Your task to perform on an android device: open app "Calculator" Image 0: 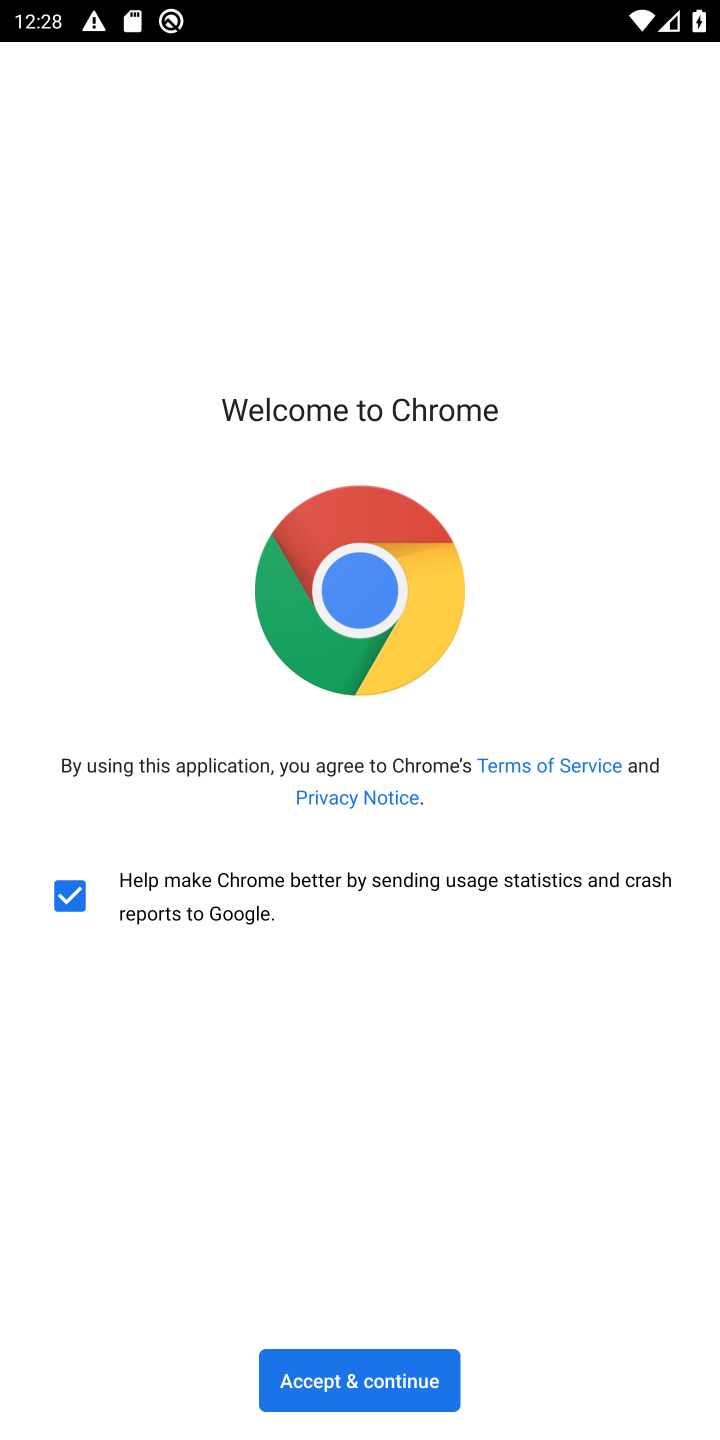
Step 0: press back button
Your task to perform on an android device: open app "Calculator" Image 1: 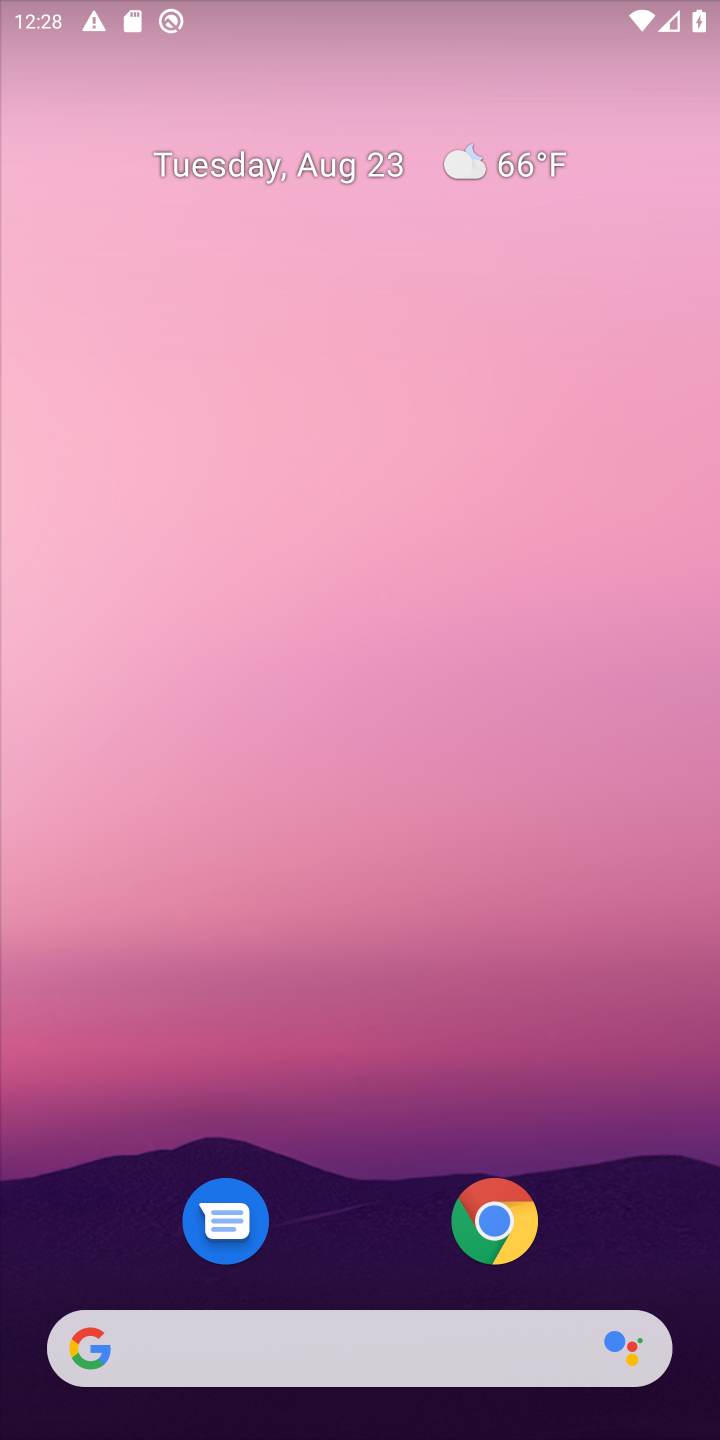
Step 1: drag from (428, 935) to (439, 164)
Your task to perform on an android device: open app "Calculator" Image 2: 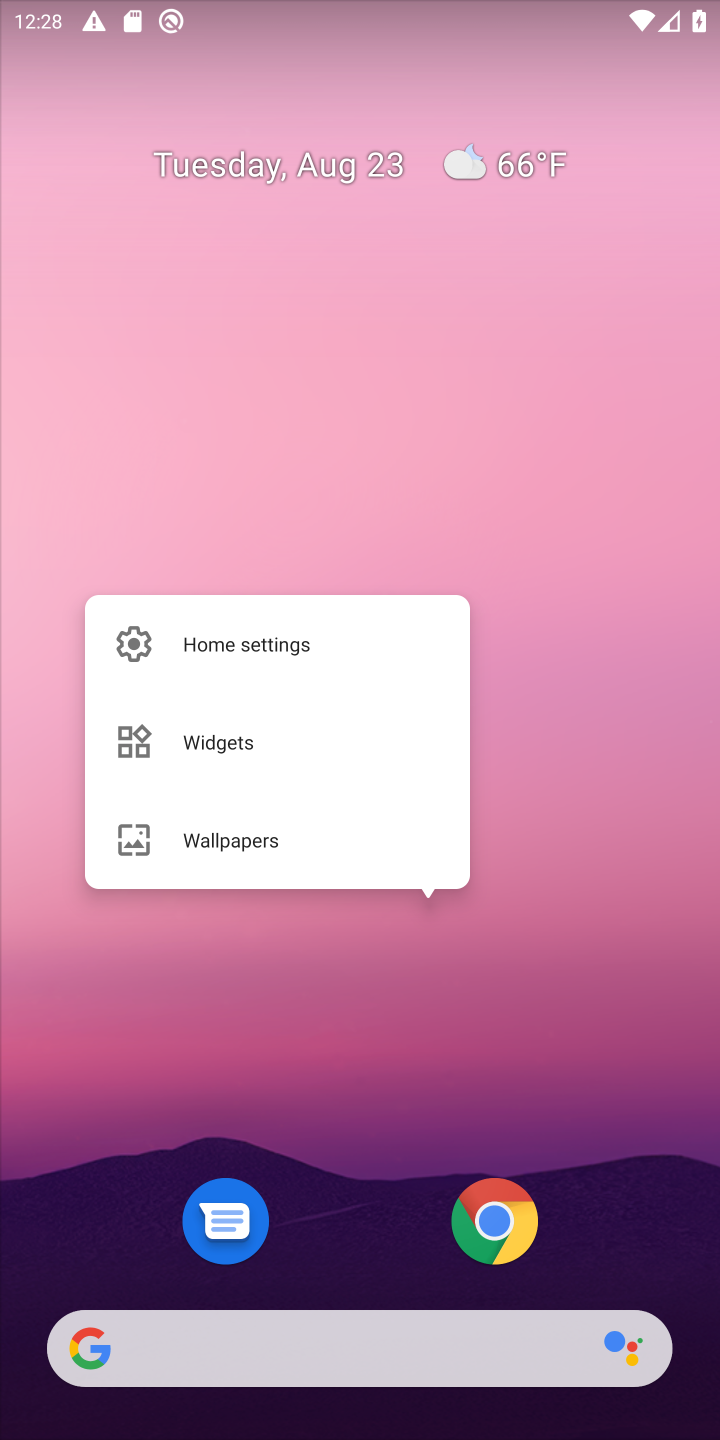
Step 2: click (283, 1062)
Your task to perform on an android device: open app "Calculator" Image 3: 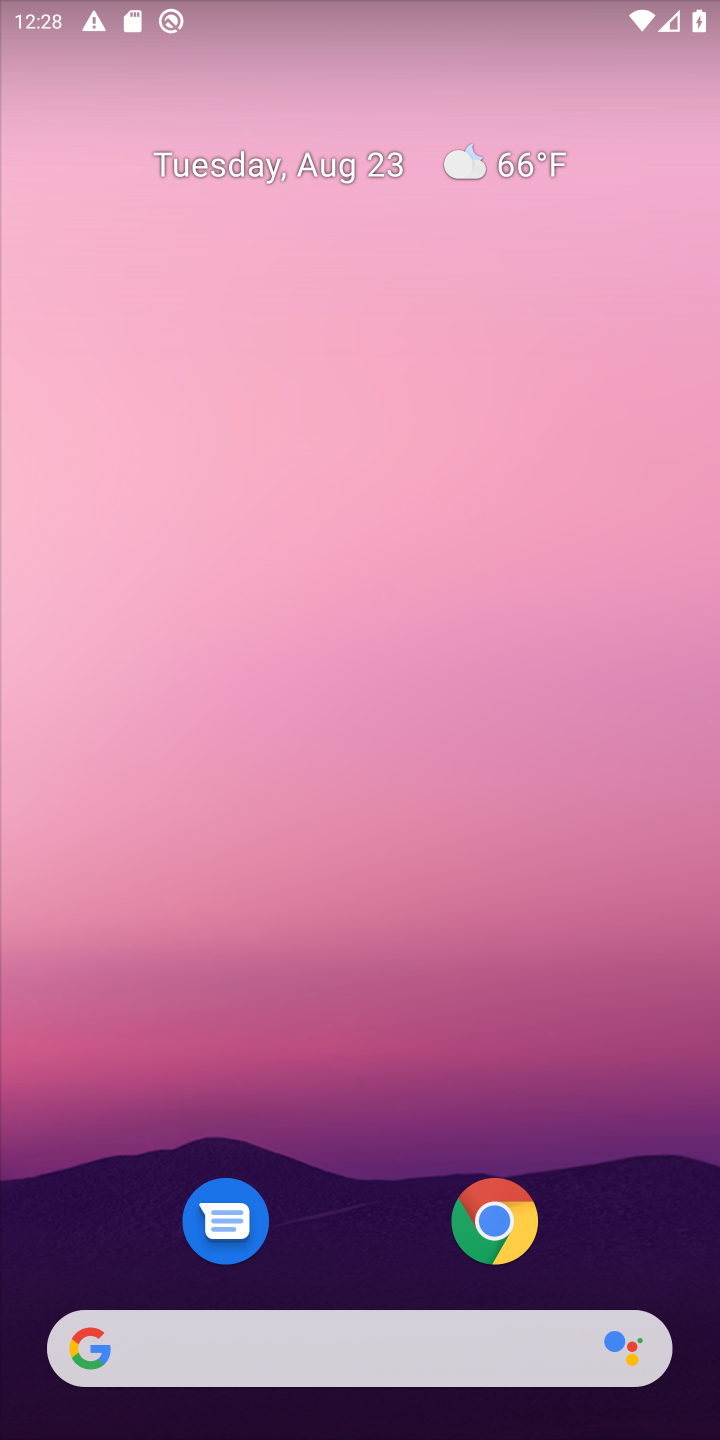
Step 3: drag from (444, 527) to (444, 428)
Your task to perform on an android device: open app "Calculator" Image 4: 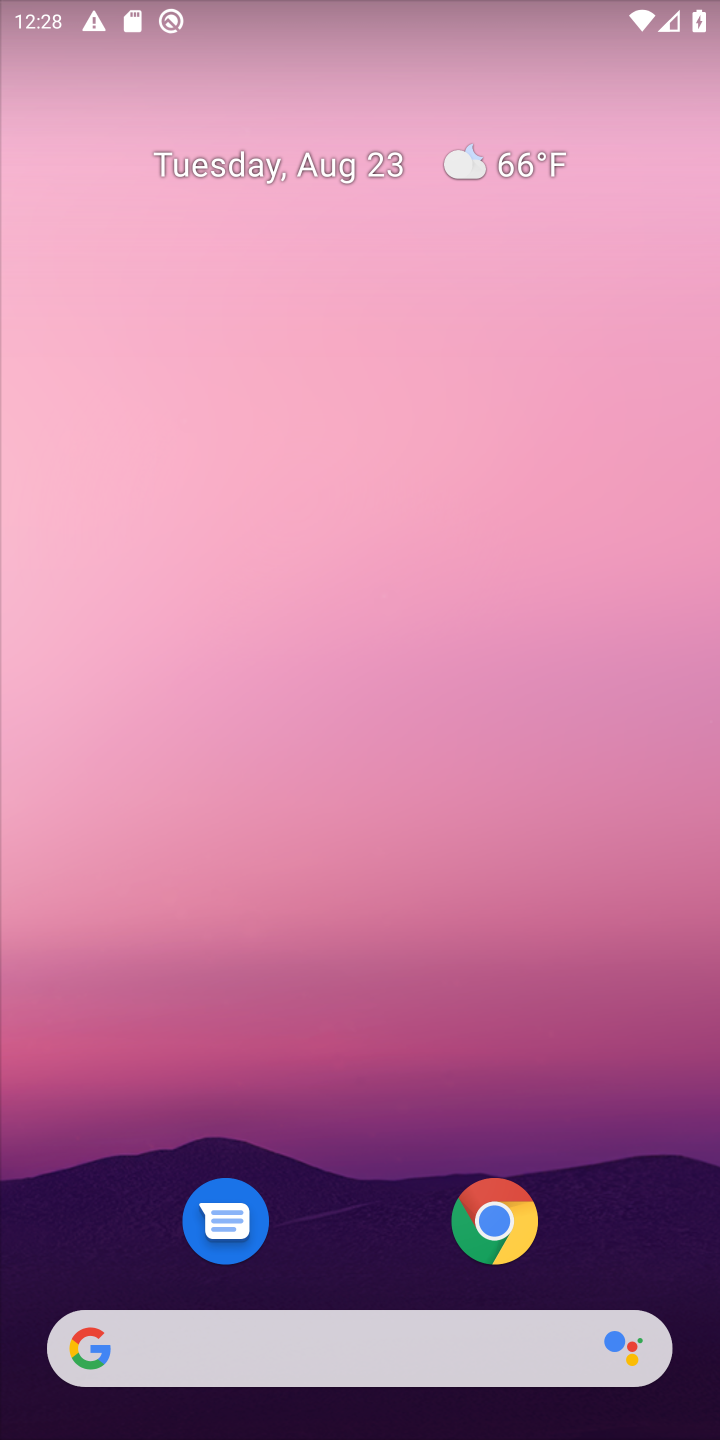
Step 4: drag from (391, 1259) to (353, 138)
Your task to perform on an android device: open app "Calculator" Image 5: 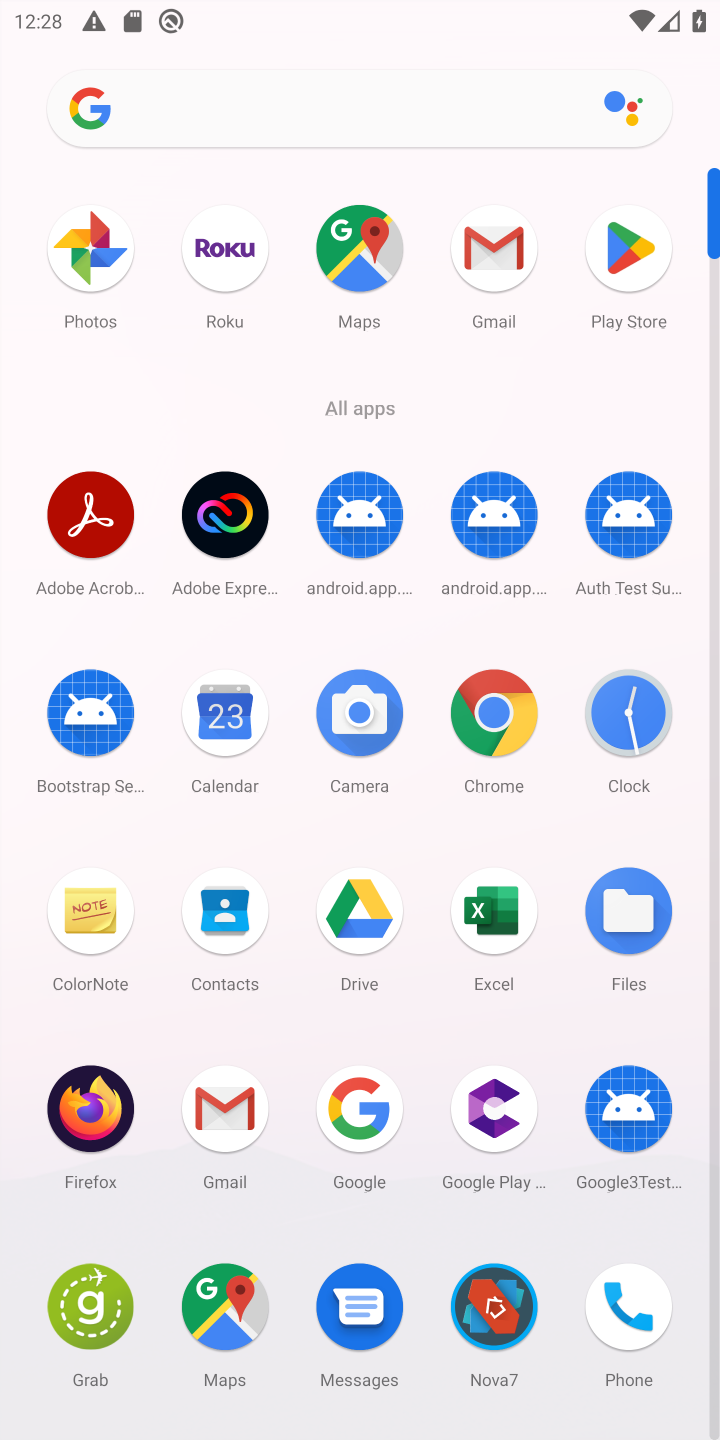
Step 5: click (626, 310)
Your task to perform on an android device: open app "Calculator" Image 6: 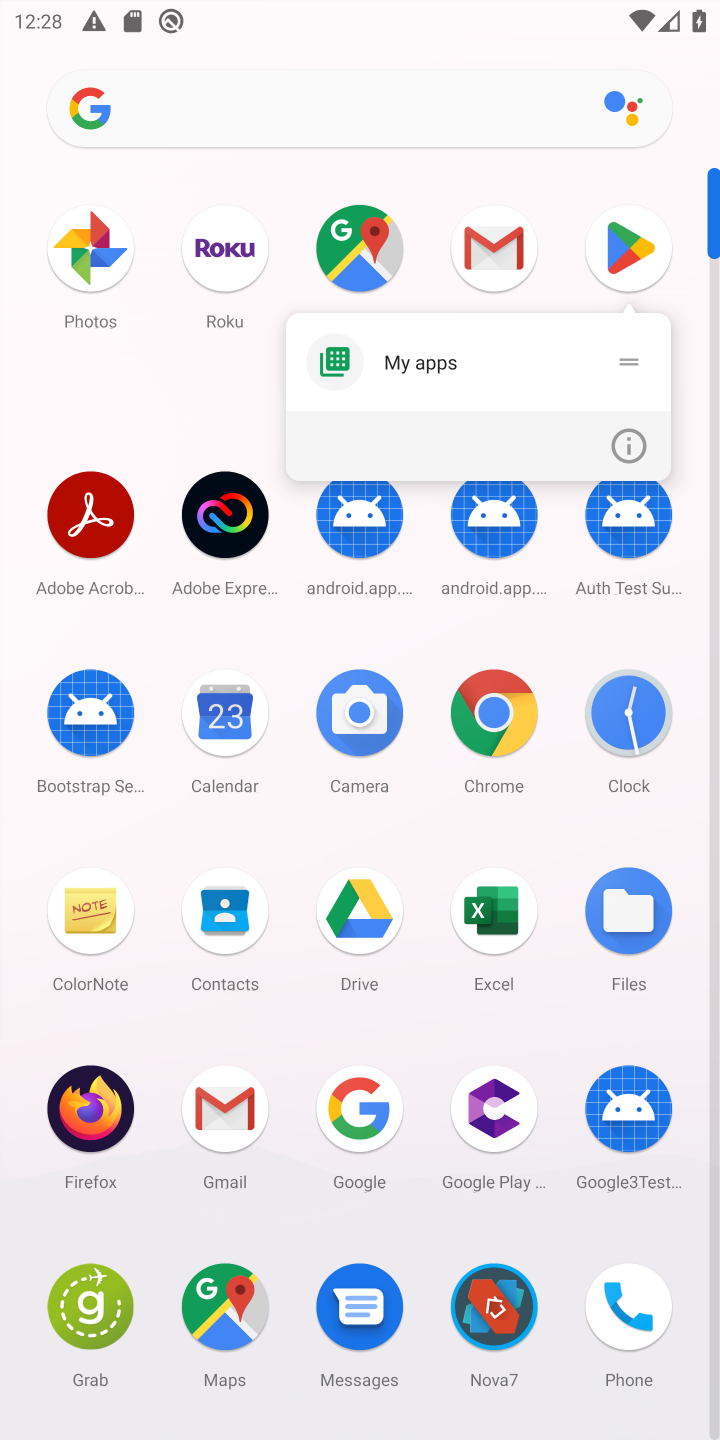
Step 6: click (616, 258)
Your task to perform on an android device: open app "Calculator" Image 7: 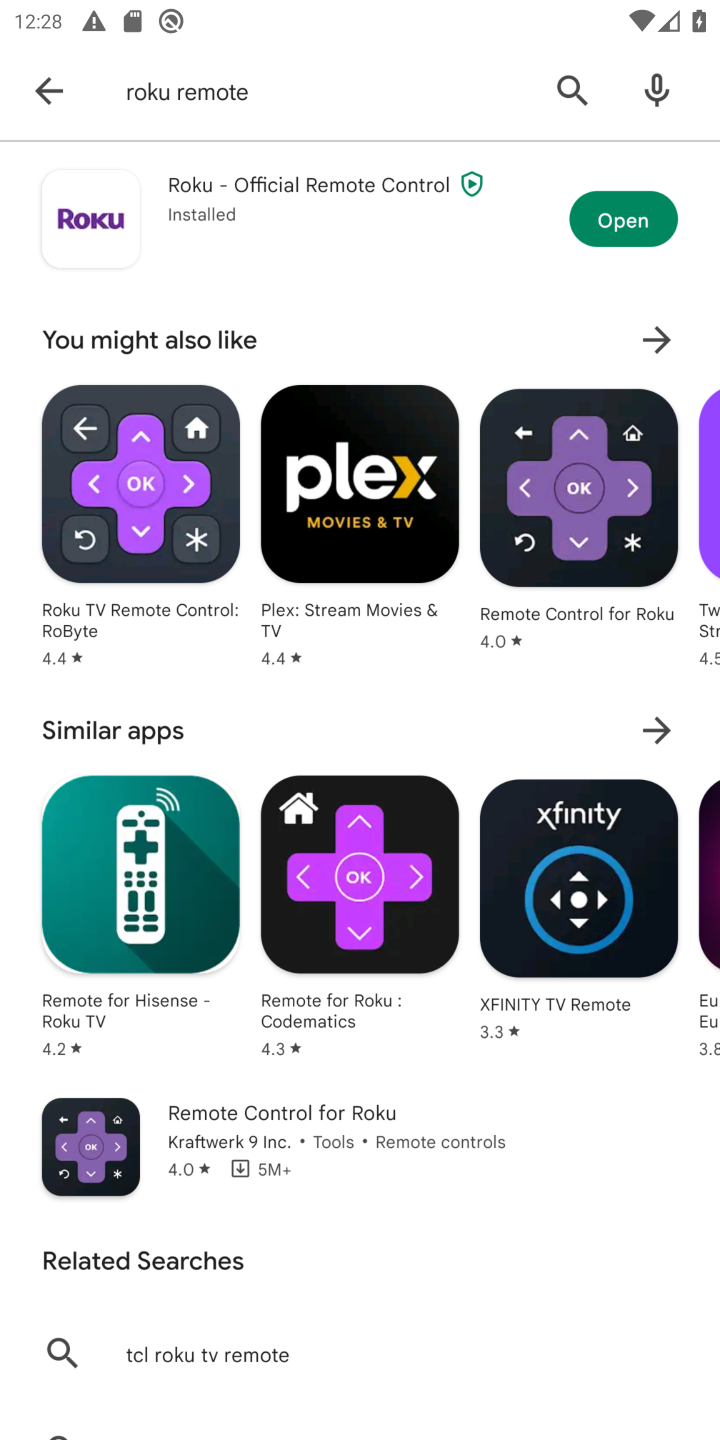
Step 7: click (616, 258)
Your task to perform on an android device: open app "Calculator" Image 8: 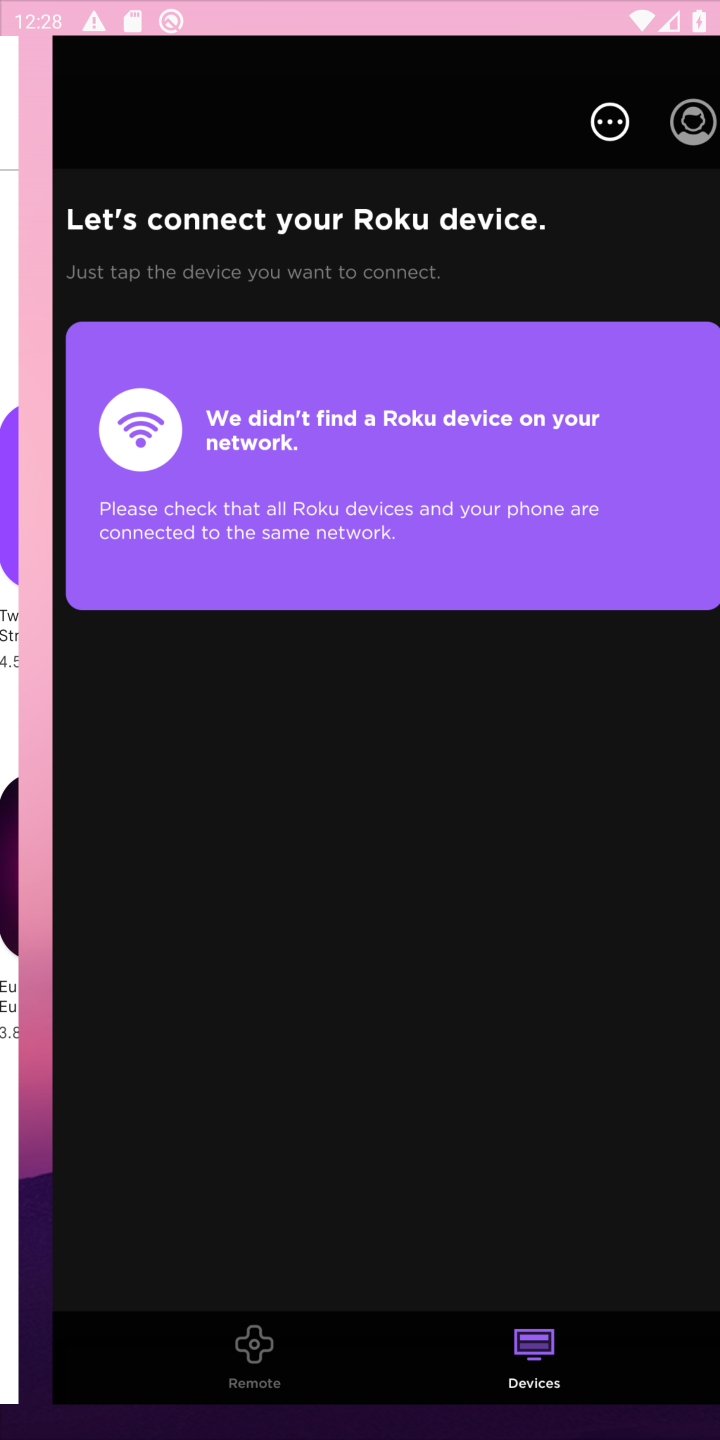
Step 8: click (568, 100)
Your task to perform on an android device: open app "Calculator" Image 9: 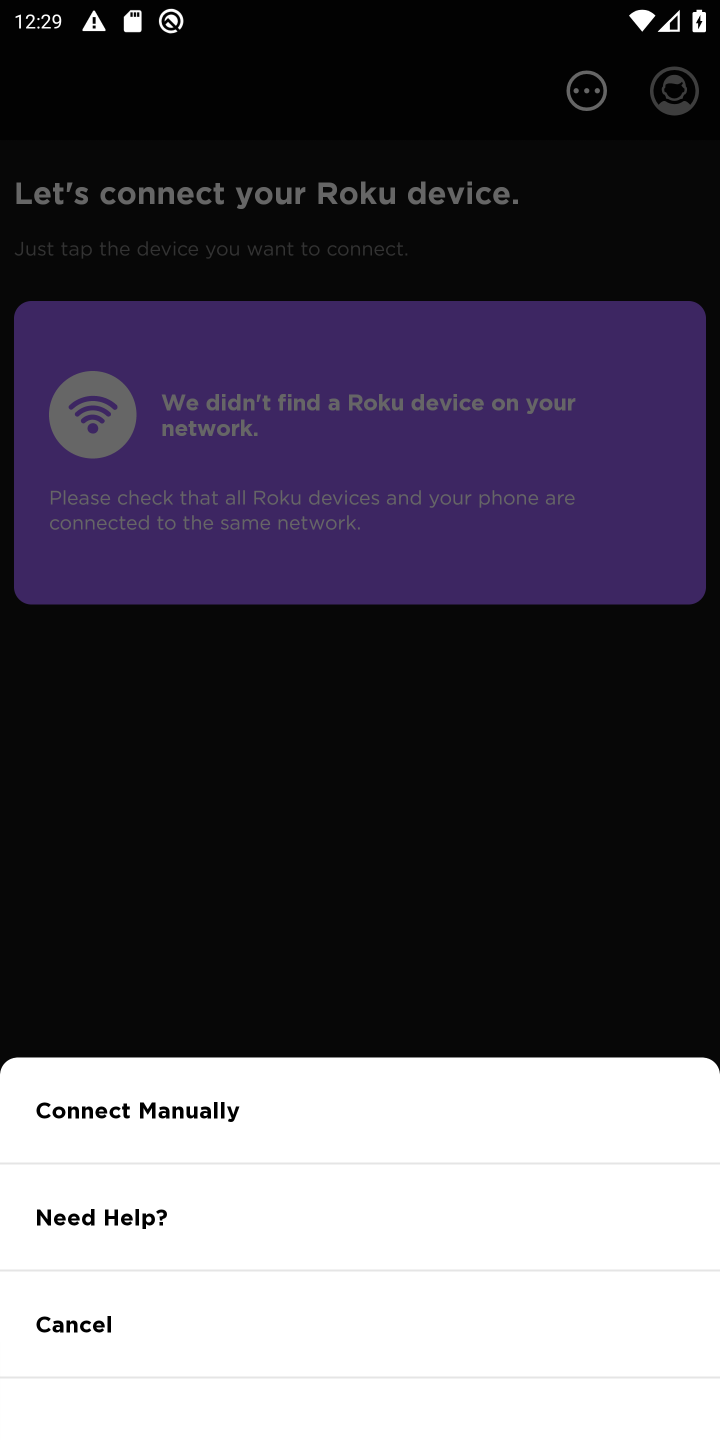
Step 9: press back button
Your task to perform on an android device: open app "Calculator" Image 10: 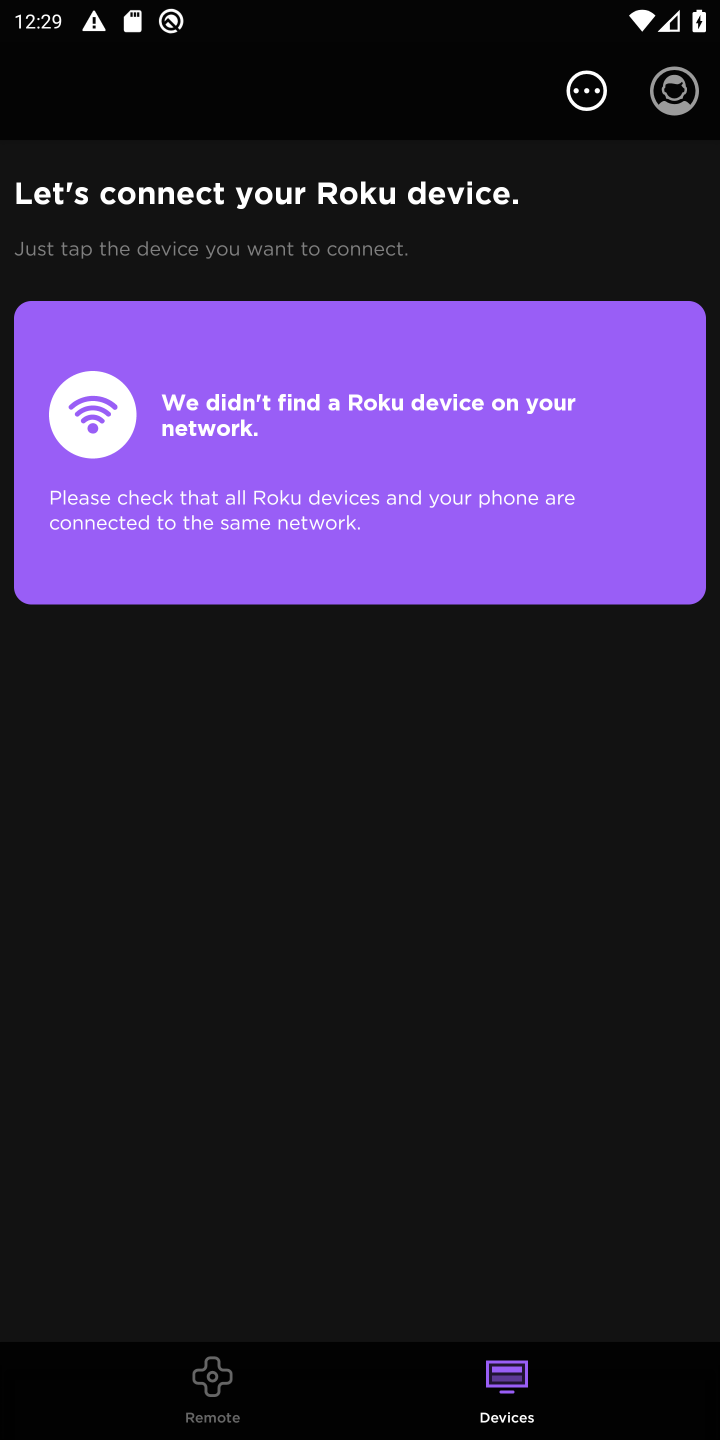
Step 10: press back button
Your task to perform on an android device: open app "Calculator" Image 11: 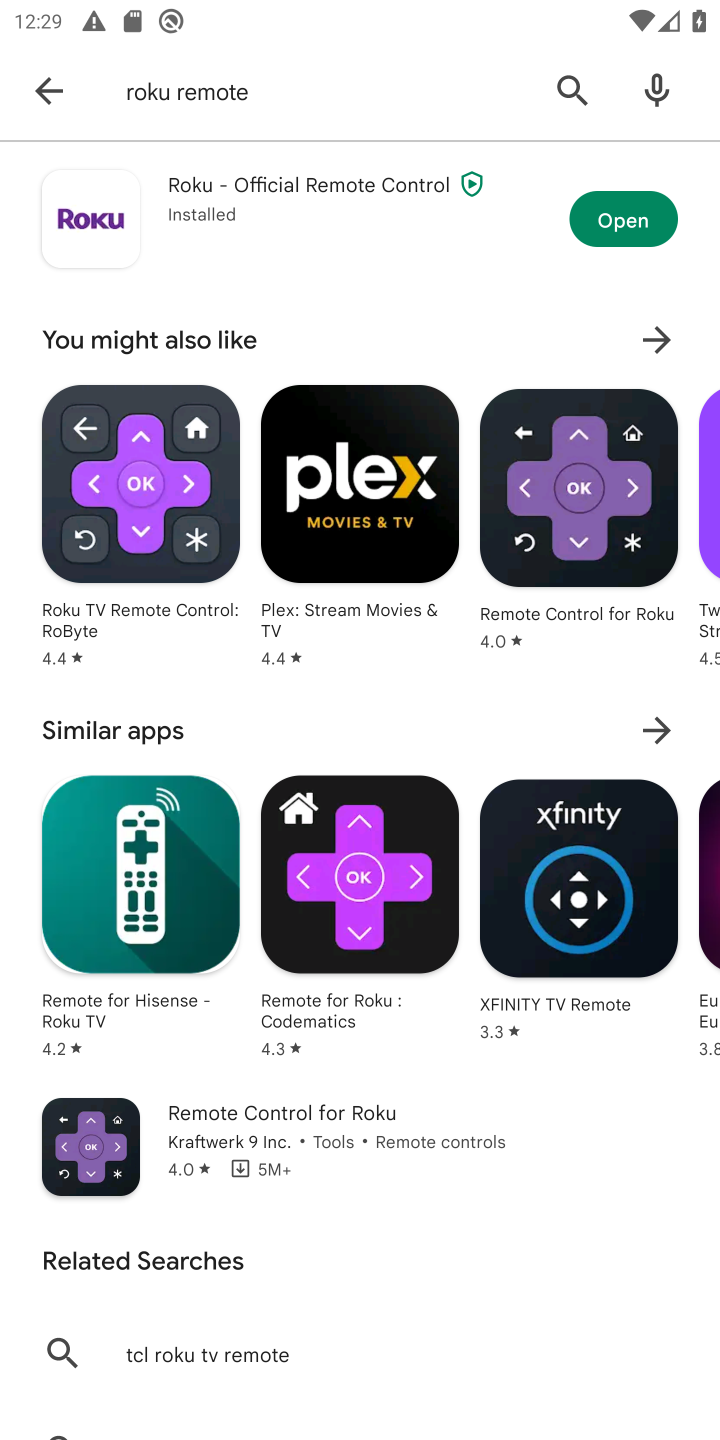
Step 11: click (557, 92)
Your task to perform on an android device: open app "Calculator" Image 12: 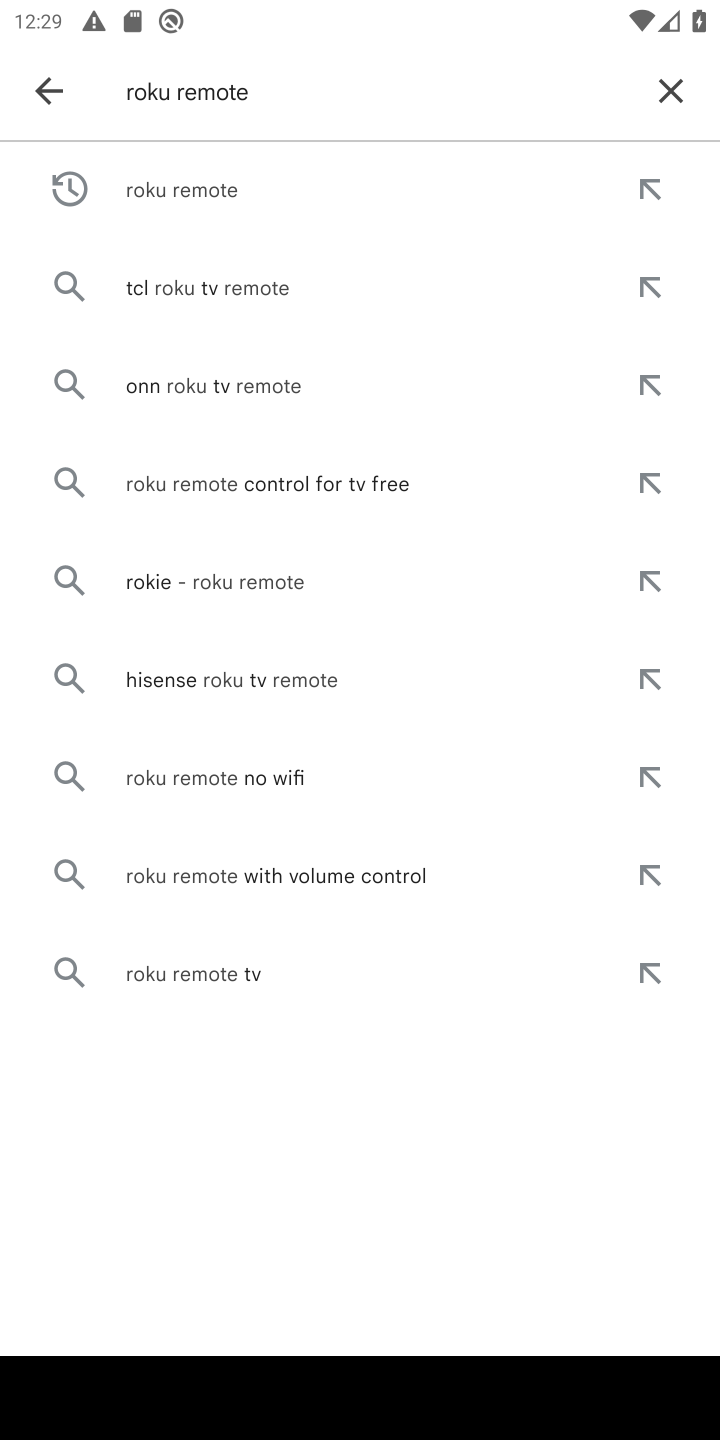
Step 12: click (671, 86)
Your task to perform on an android device: open app "Calculator" Image 13: 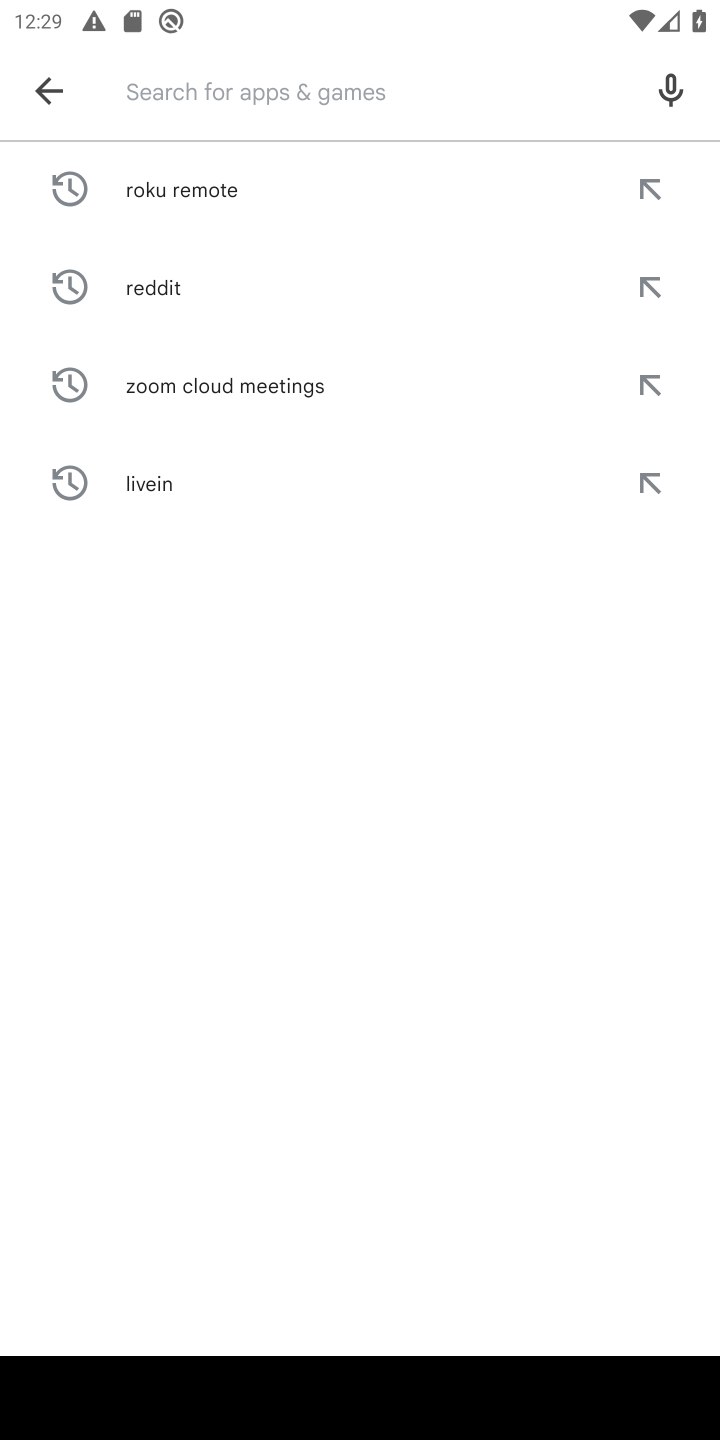
Step 13: click (191, 98)
Your task to perform on an android device: open app "Calculator" Image 14: 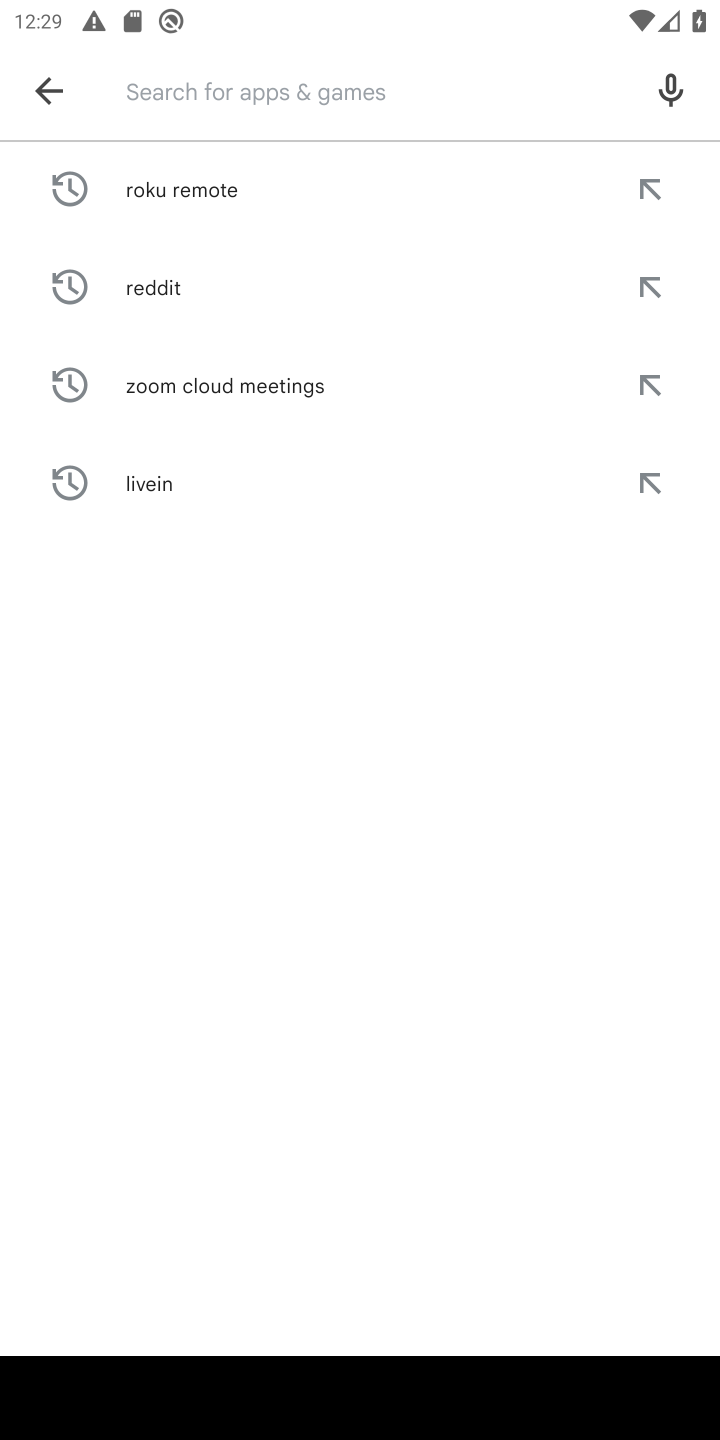
Step 14: type "Calculator"
Your task to perform on an android device: open app "Calculator" Image 15: 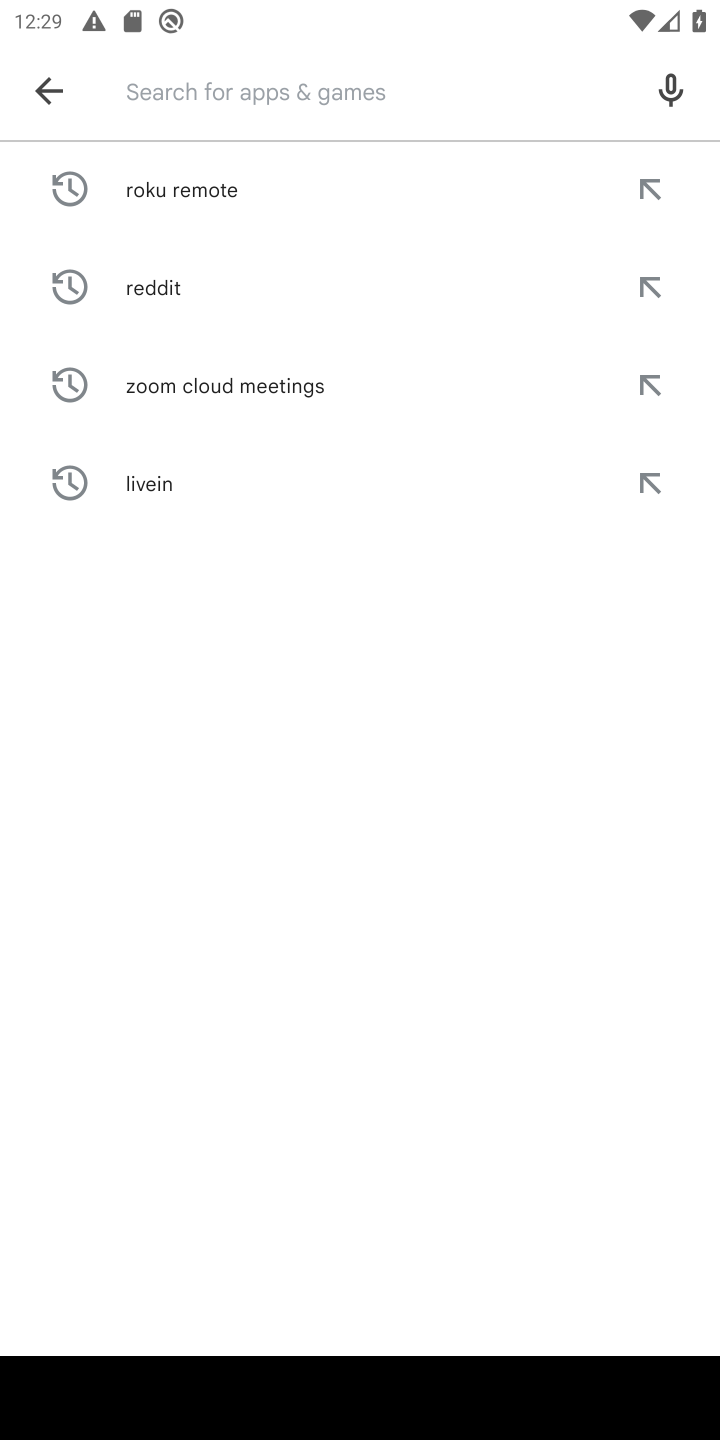
Step 15: click (153, 863)
Your task to perform on an android device: open app "Calculator" Image 16: 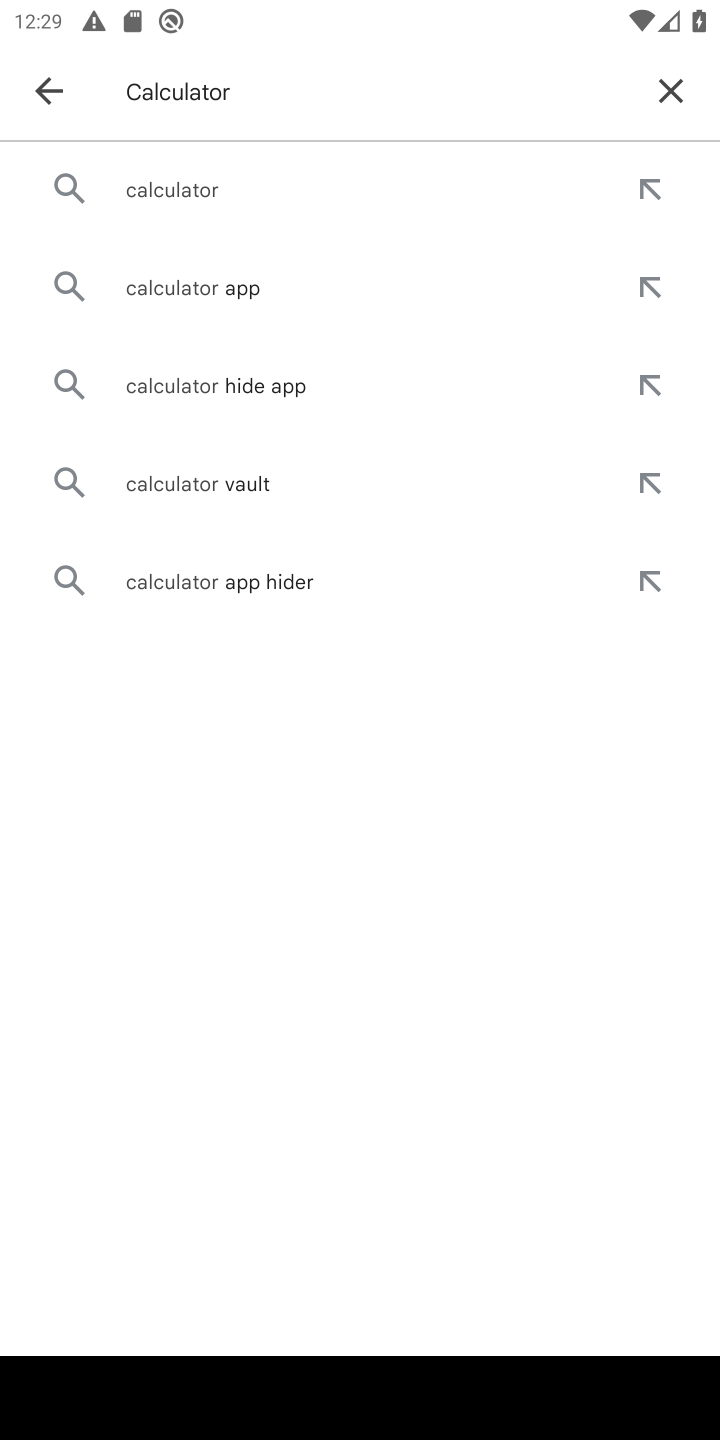
Step 16: click (169, 187)
Your task to perform on an android device: open app "Calculator" Image 17: 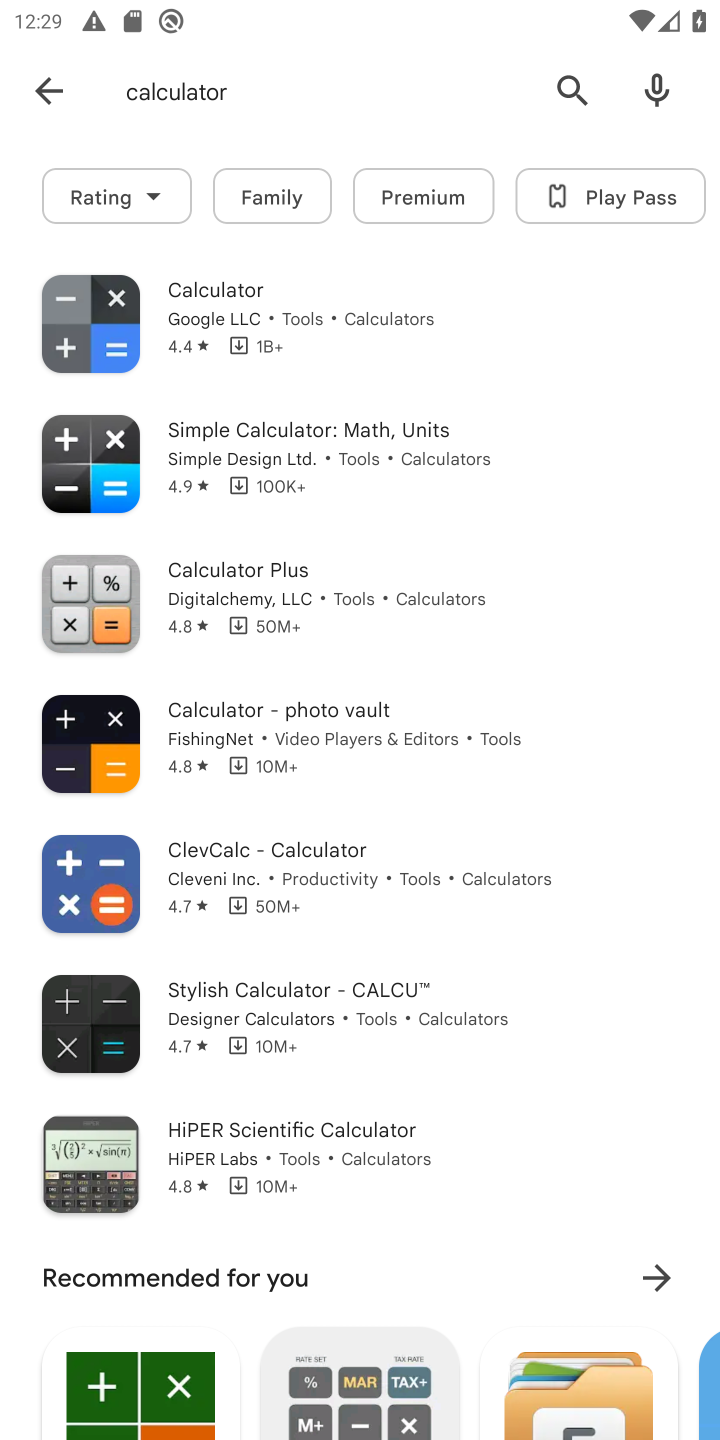
Step 17: click (199, 311)
Your task to perform on an android device: open app "Calculator" Image 18: 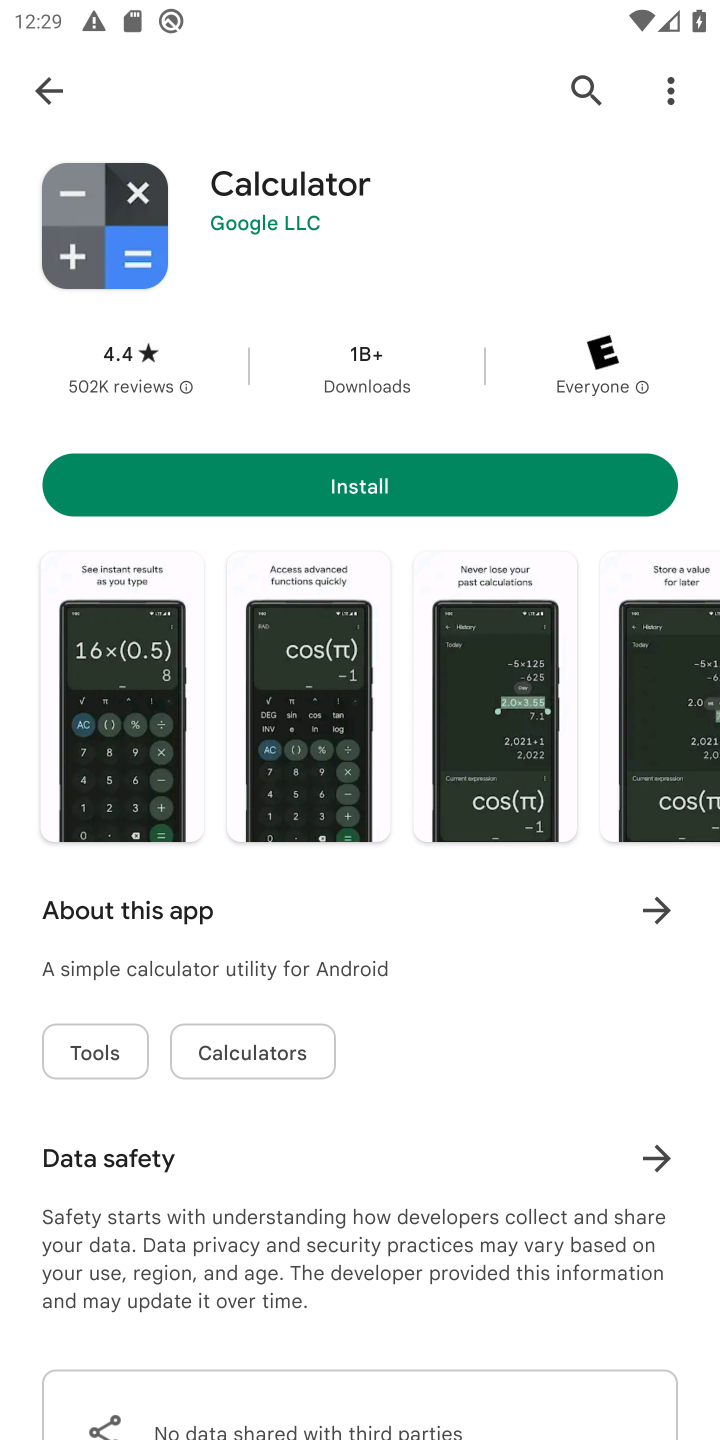
Step 18: task complete